Your task to perform on an android device: change timer sound Image 0: 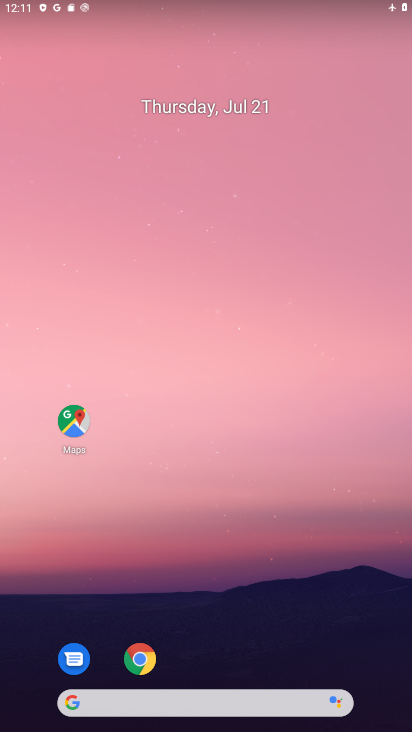
Step 0: drag from (300, 656) to (320, 154)
Your task to perform on an android device: change timer sound Image 1: 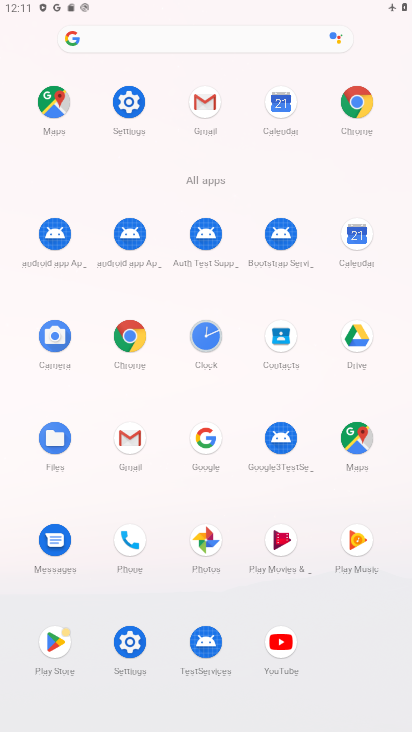
Step 1: click (209, 345)
Your task to perform on an android device: change timer sound Image 2: 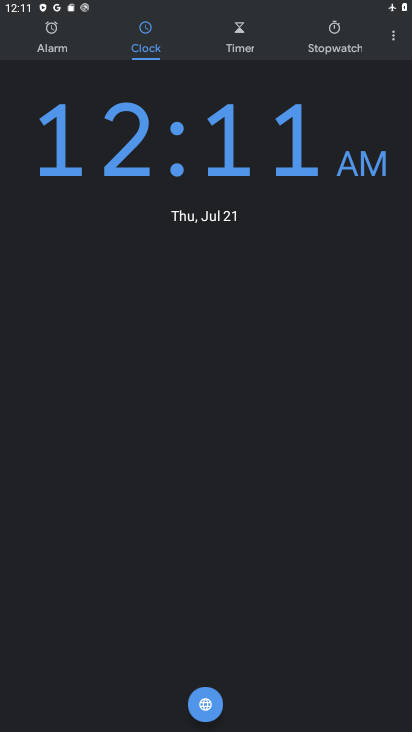
Step 2: click (392, 42)
Your task to perform on an android device: change timer sound Image 3: 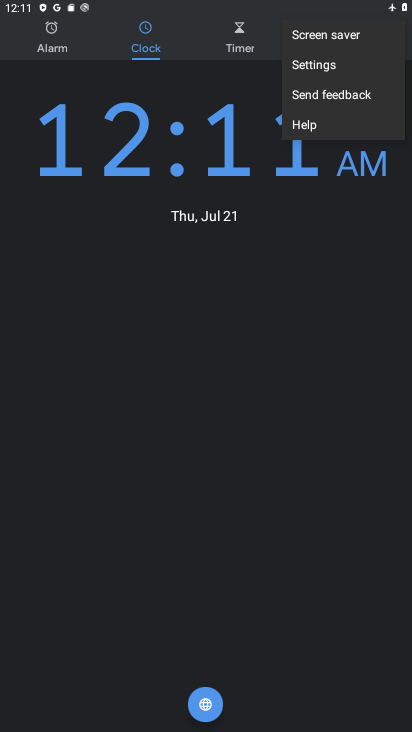
Step 3: click (344, 68)
Your task to perform on an android device: change timer sound Image 4: 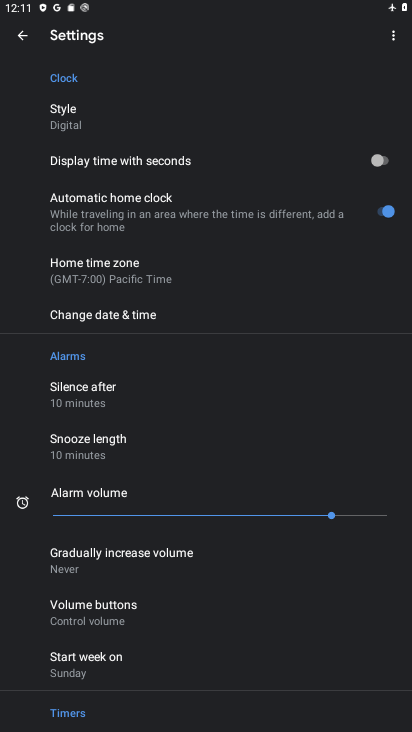
Step 4: drag from (267, 584) to (249, 337)
Your task to perform on an android device: change timer sound Image 5: 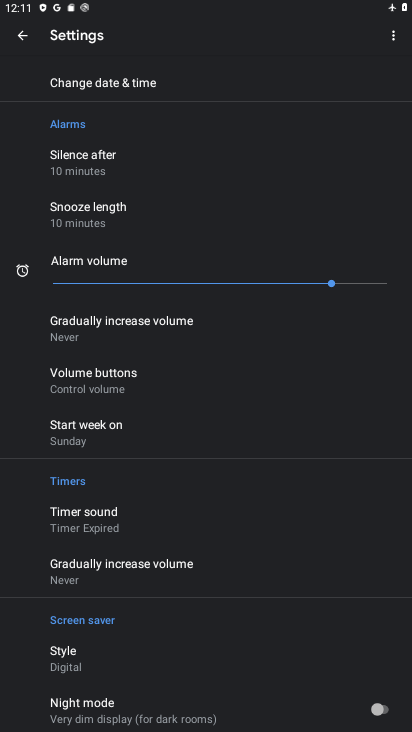
Step 5: click (244, 515)
Your task to perform on an android device: change timer sound Image 6: 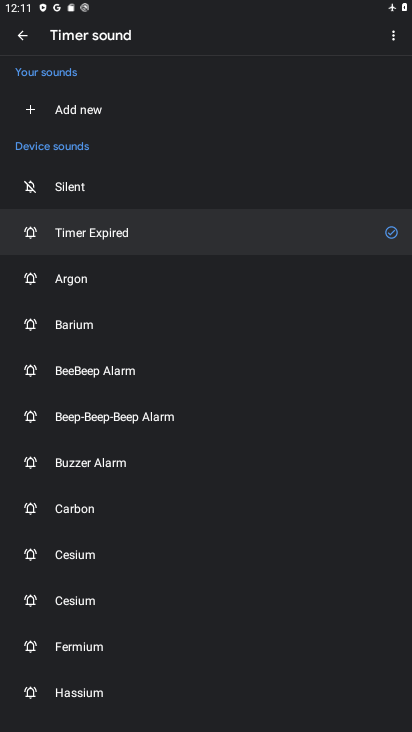
Step 6: click (197, 376)
Your task to perform on an android device: change timer sound Image 7: 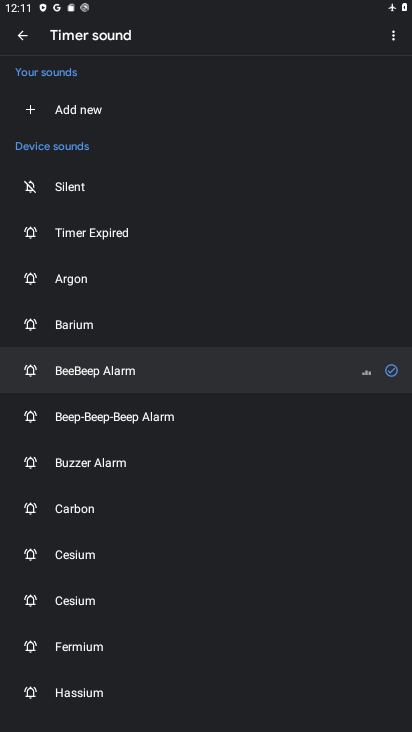
Step 7: task complete